Your task to perform on an android device: Toggle the flashlight Image 0: 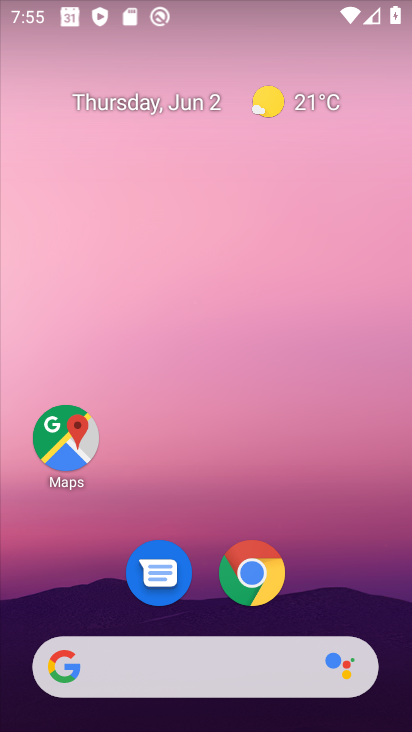
Step 0: drag from (327, 600) to (309, 36)
Your task to perform on an android device: Toggle the flashlight Image 1: 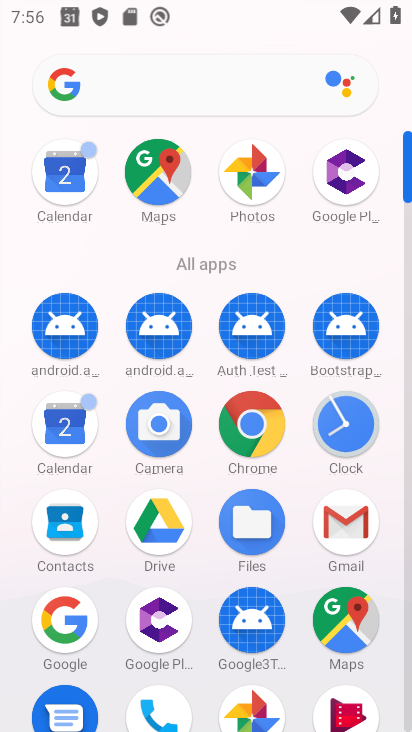
Step 1: drag from (199, 634) to (234, 146)
Your task to perform on an android device: Toggle the flashlight Image 2: 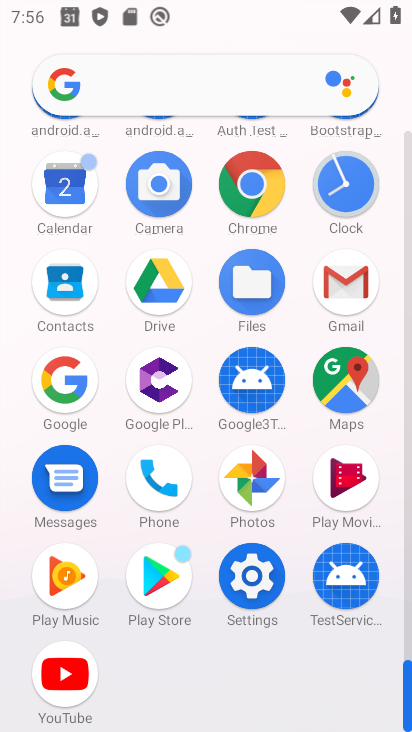
Step 2: click (247, 590)
Your task to perform on an android device: Toggle the flashlight Image 3: 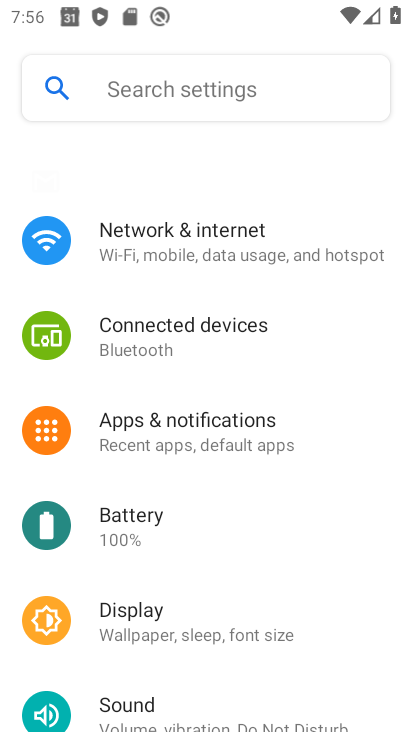
Step 3: click (206, 94)
Your task to perform on an android device: Toggle the flashlight Image 4: 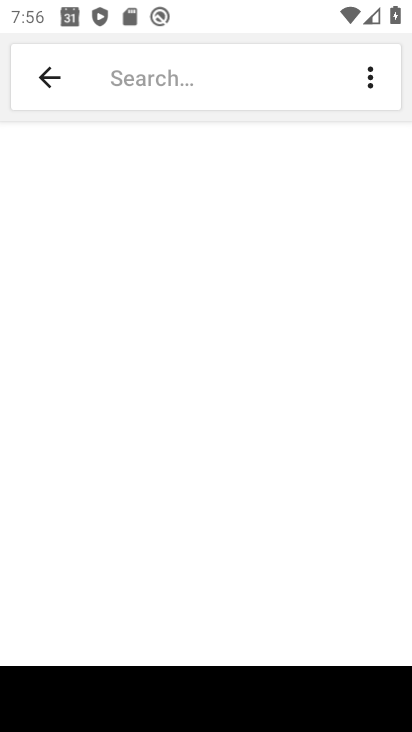
Step 4: type "flash"
Your task to perform on an android device: Toggle the flashlight Image 5: 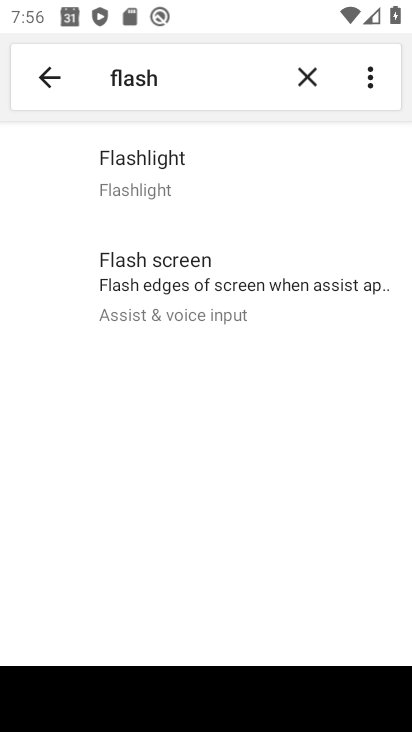
Step 5: task complete